Your task to perform on an android device: Toggle the flashlight Image 0: 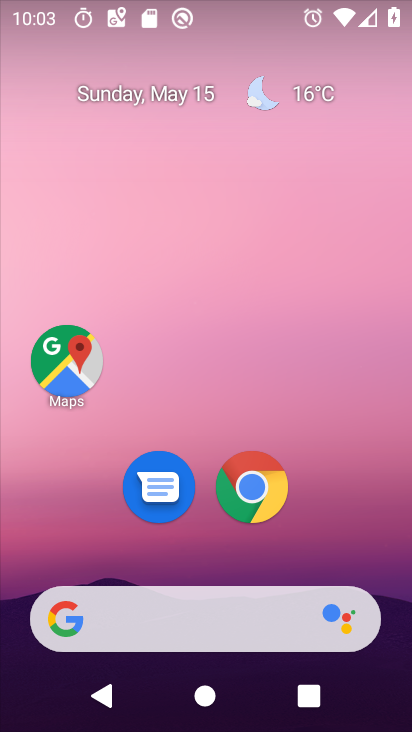
Step 0: drag from (393, 545) to (342, 105)
Your task to perform on an android device: Toggle the flashlight Image 1: 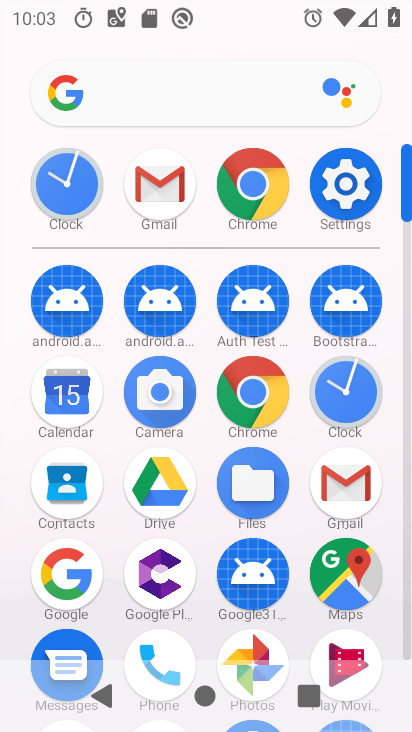
Step 1: click (362, 193)
Your task to perform on an android device: Toggle the flashlight Image 2: 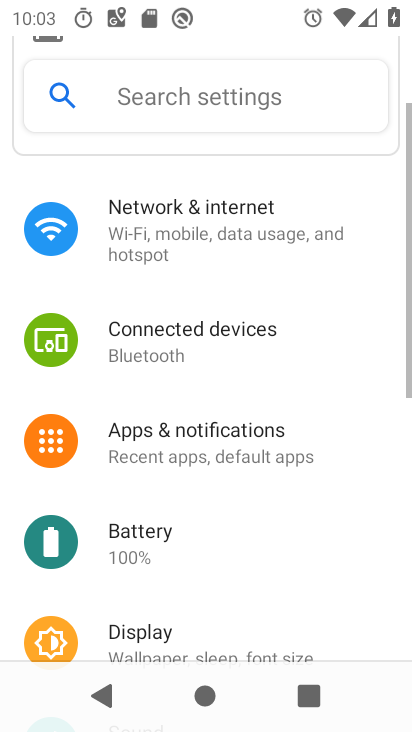
Step 2: click (140, 102)
Your task to perform on an android device: Toggle the flashlight Image 3: 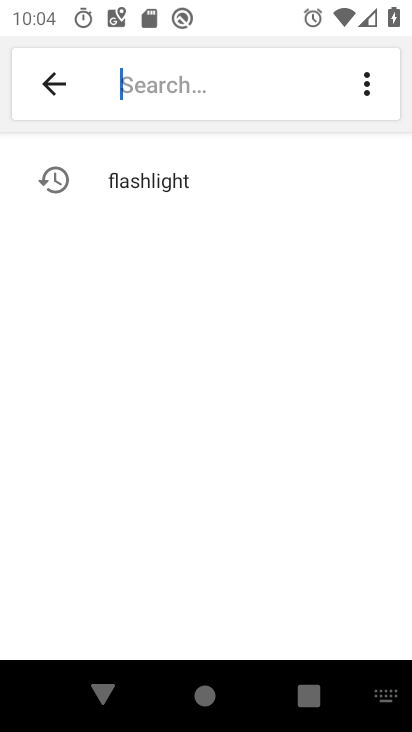
Step 3: type "flashlight"
Your task to perform on an android device: Toggle the flashlight Image 4: 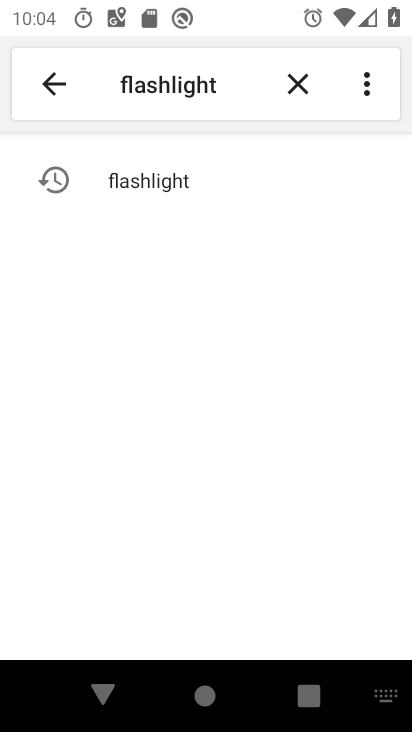
Step 4: click (180, 187)
Your task to perform on an android device: Toggle the flashlight Image 5: 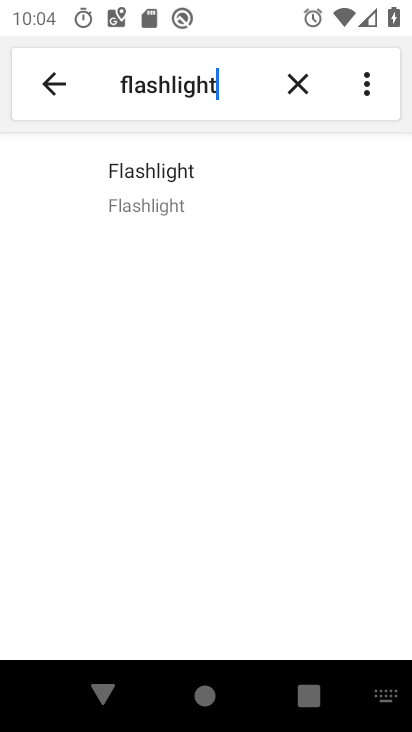
Step 5: task complete